Your task to perform on an android device: Open Google Image 0: 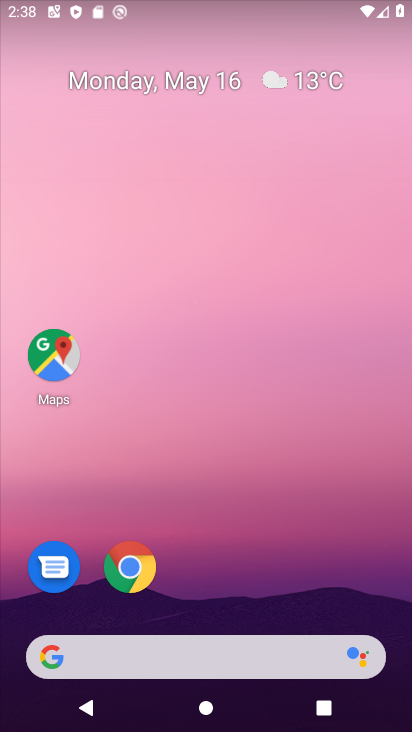
Step 0: drag from (249, 573) to (276, 119)
Your task to perform on an android device: Open Google Image 1: 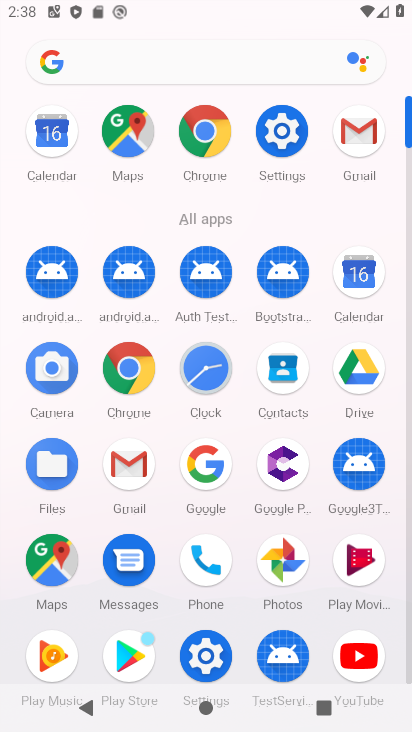
Step 1: click (203, 473)
Your task to perform on an android device: Open Google Image 2: 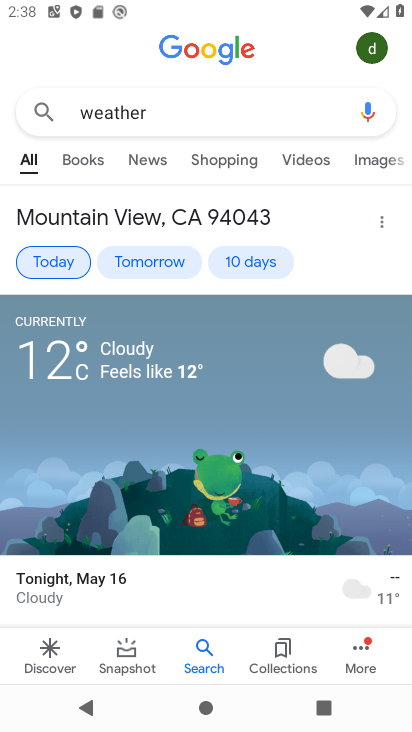
Step 2: task complete